Your task to perform on an android device: move an email to a new category in the gmail app Image 0: 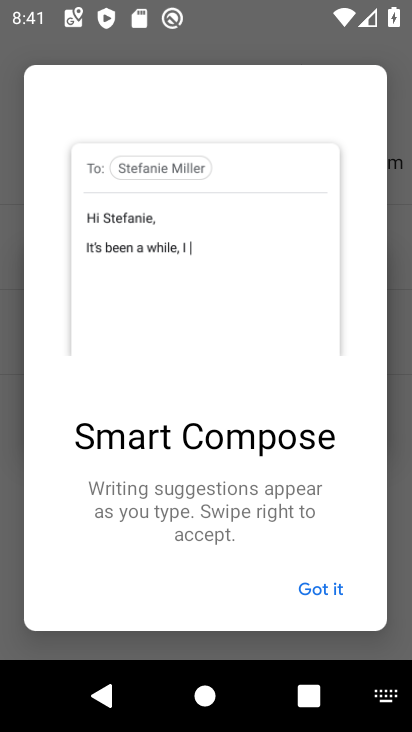
Step 0: press home button
Your task to perform on an android device: move an email to a new category in the gmail app Image 1: 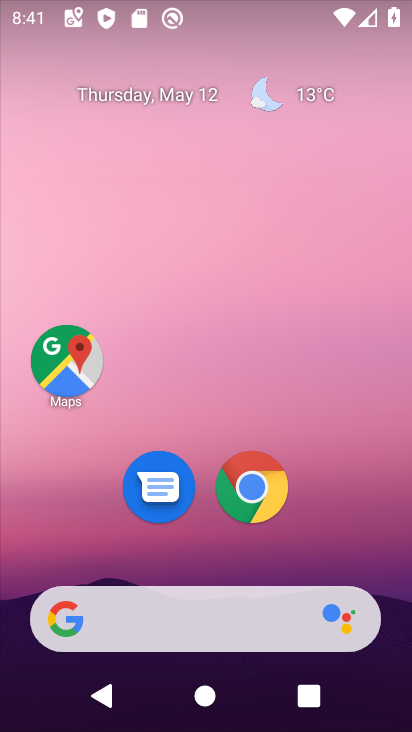
Step 1: drag from (375, 559) to (347, 8)
Your task to perform on an android device: move an email to a new category in the gmail app Image 2: 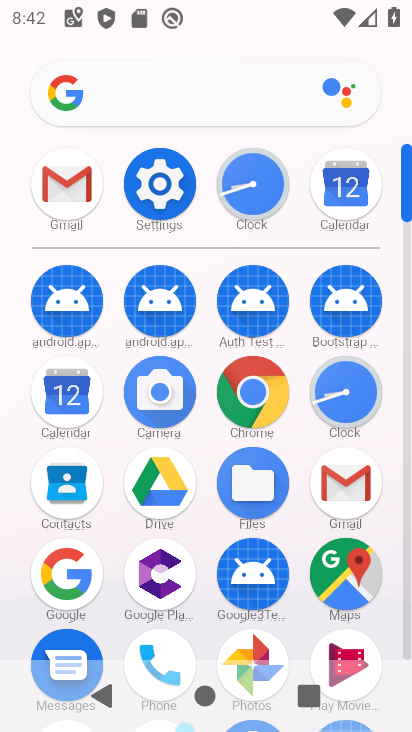
Step 2: click (334, 483)
Your task to perform on an android device: move an email to a new category in the gmail app Image 3: 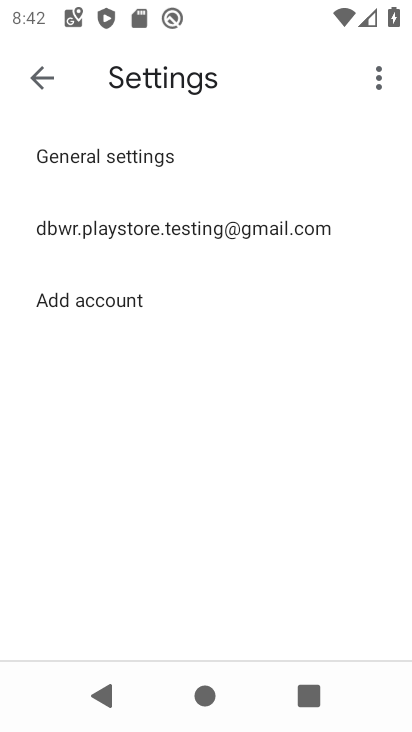
Step 3: click (41, 75)
Your task to perform on an android device: move an email to a new category in the gmail app Image 4: 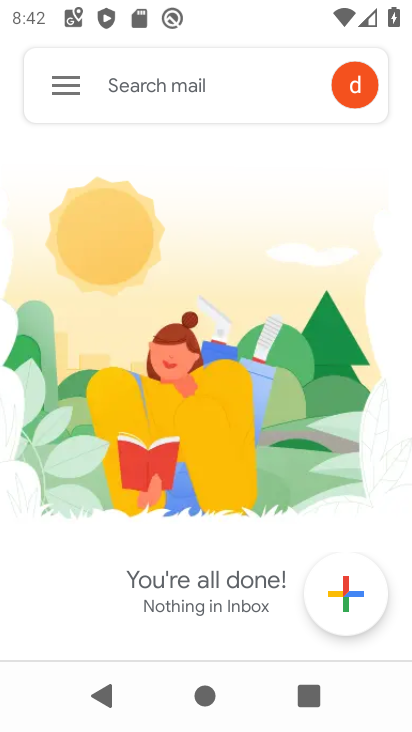
Step 4: click (61, 86)
Your task to perform on an android device: move an email to a new category in the gmail app Image 5: 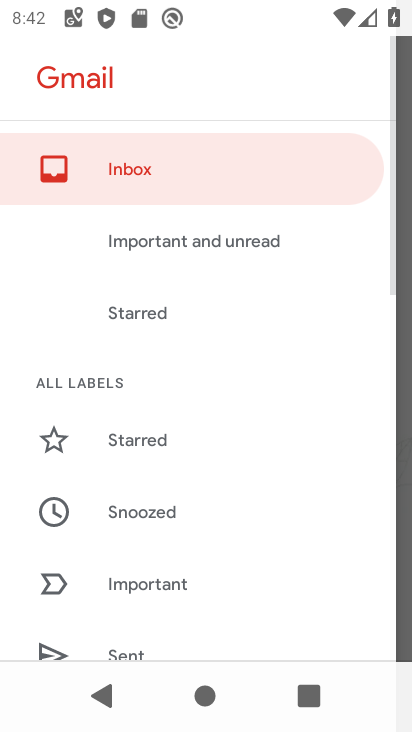
Step 5: drag from (239, 561) to (223, 60)
Your task to perform on an android device: move an email to a new category in the gmail app Image 6: 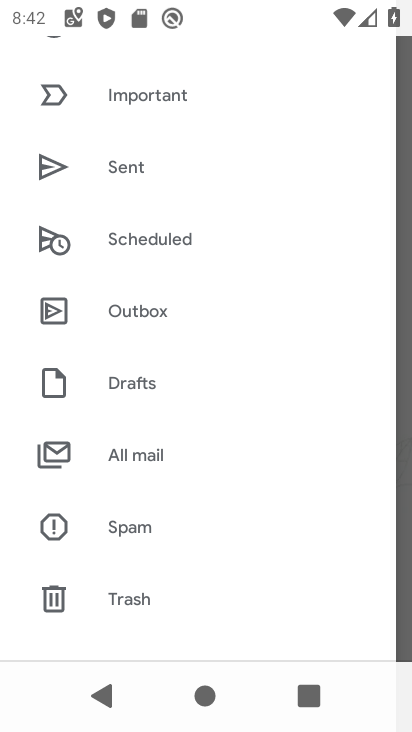
Step 6: click (157, 445)
Your task to perform on an android device: move an email to a new category in the gmail app Image 7: 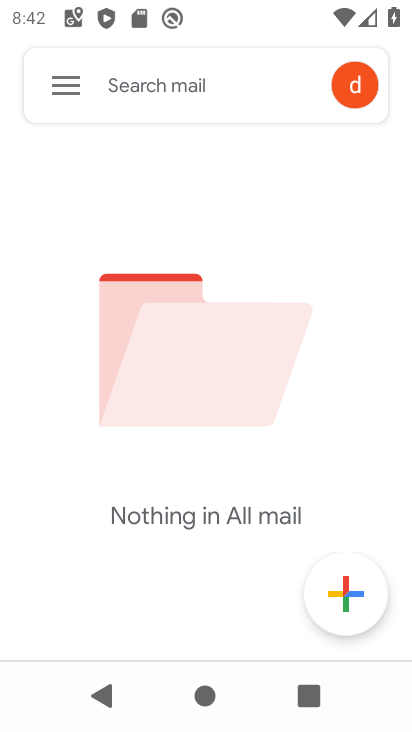
Step 7: task complete